Your task to perform on an android device: Open eBay Image 0: 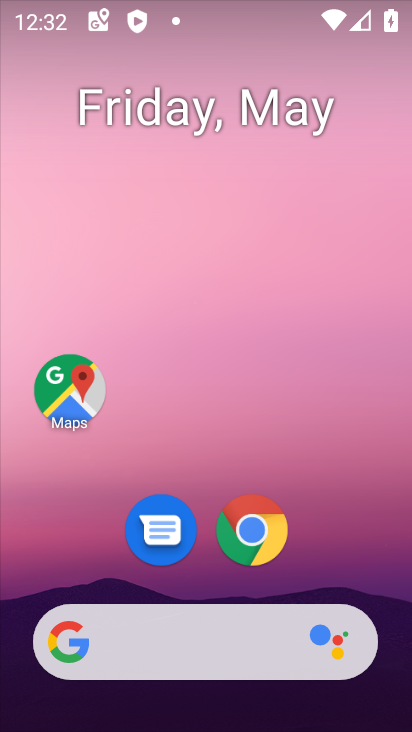
Step 0: click (250, 526)
Your task to perform on an android device: Open eBay Image 1: 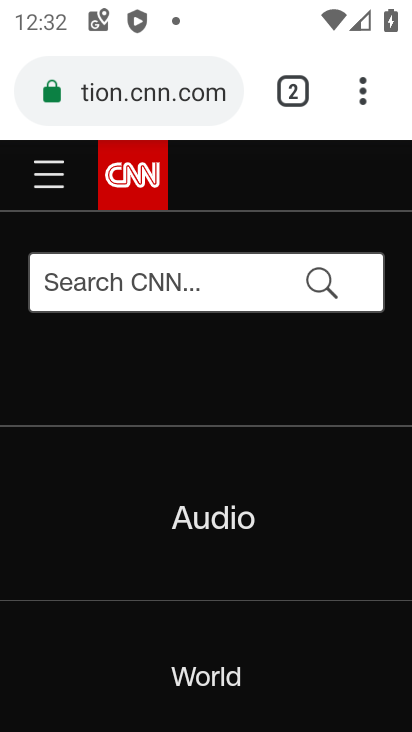
Step 1: click (188, 97)
Your task to perform on an android device: Open eBay Image 2: 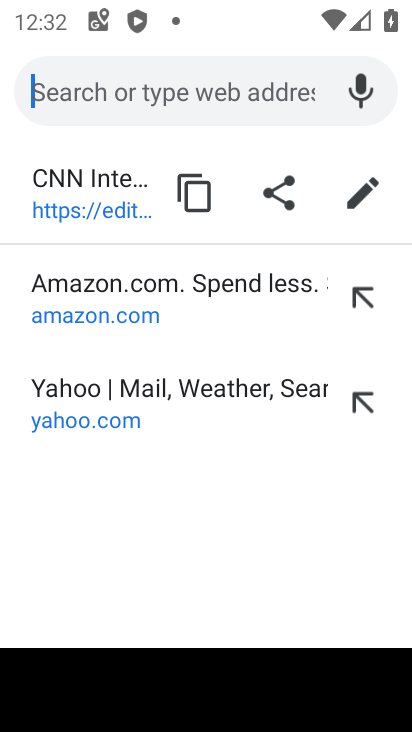
Step 2: type "eBay"
Your task to perform on an android device: Open eBay Image 3: 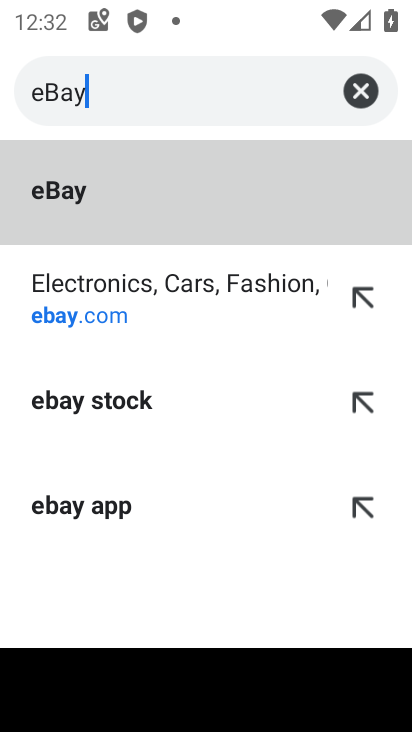
Step 3: click (69, 205)
Your task to perform on an android device: Open eBay Image 4: 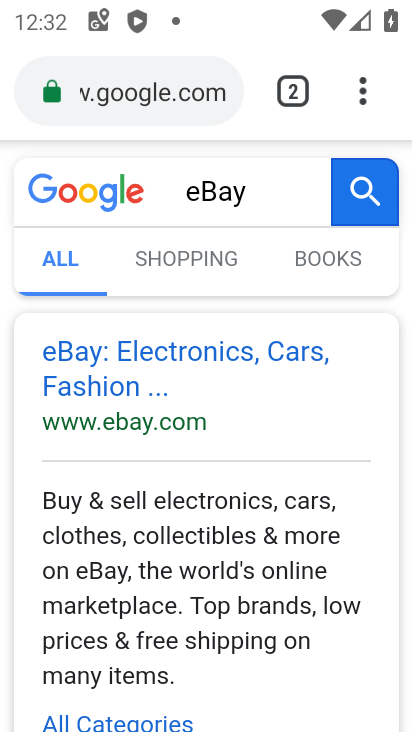
Step 4: click (220, 364)
Your task to perform on an android device: Open eBay Image 5: 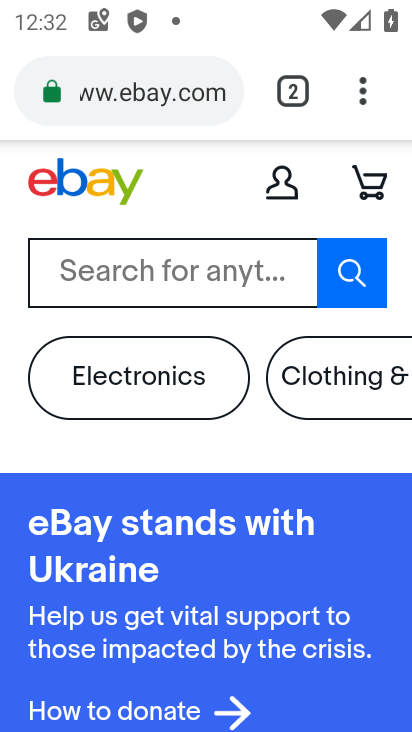
Step 5: task complete